Your task to perform on an android device: Go to accessibility settings Image 0: 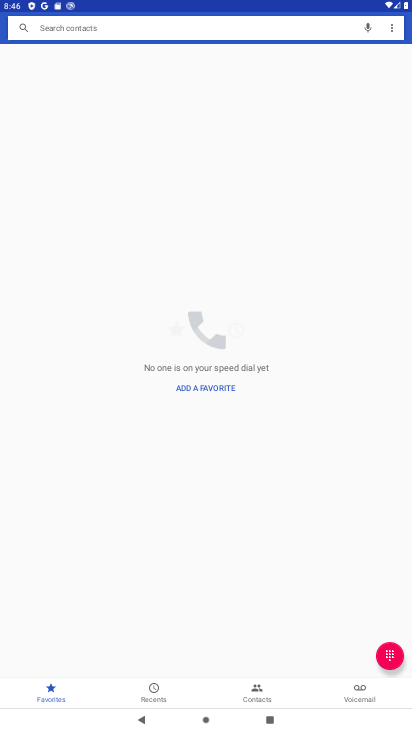
Step 0: press home button
Your task to perform on an android device: Go to accessibility settings Image 1: 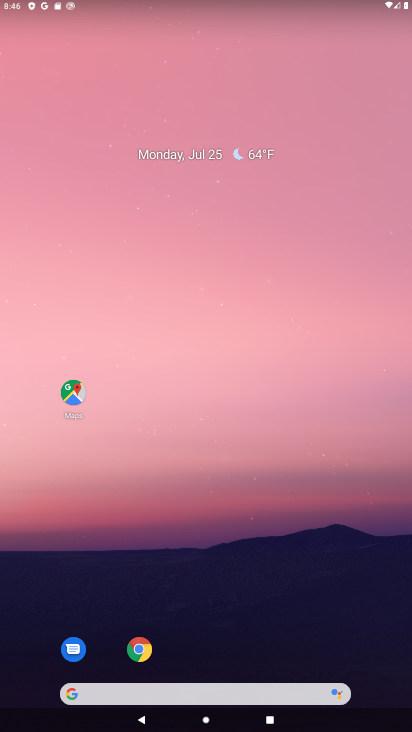
Step 1: drag from (284, 641) to (259, 40)
Your task to perform on an android device: Go to accessibility settings Image 2: 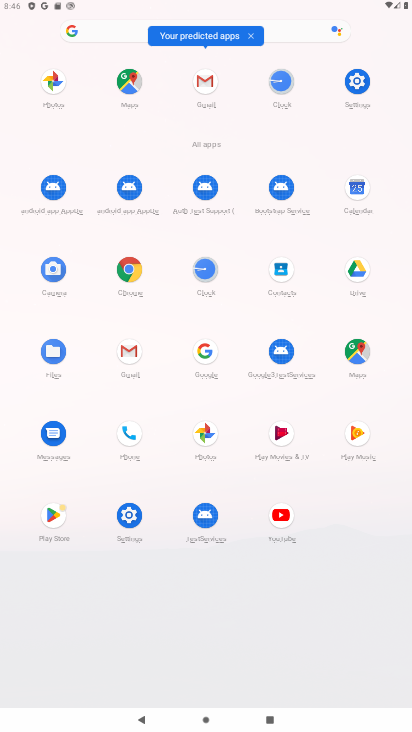
Step 2: click (132, 517)
Your task to perform on an android device: Go to accessibility settings Image 3: 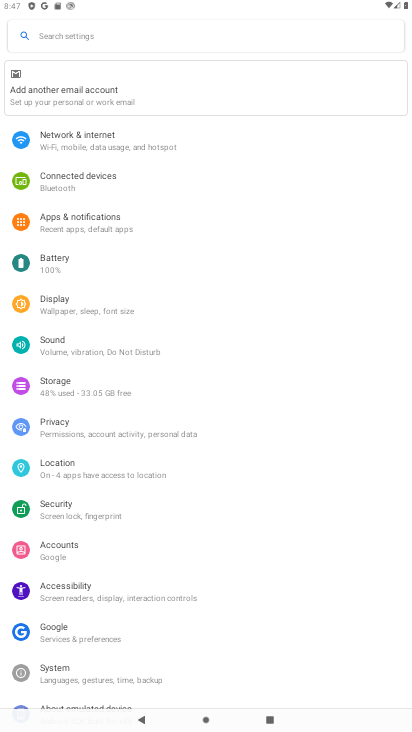
Step 3: click (143, 590)
Your task to perform on an android device: Go to accessibility settings Image 4: 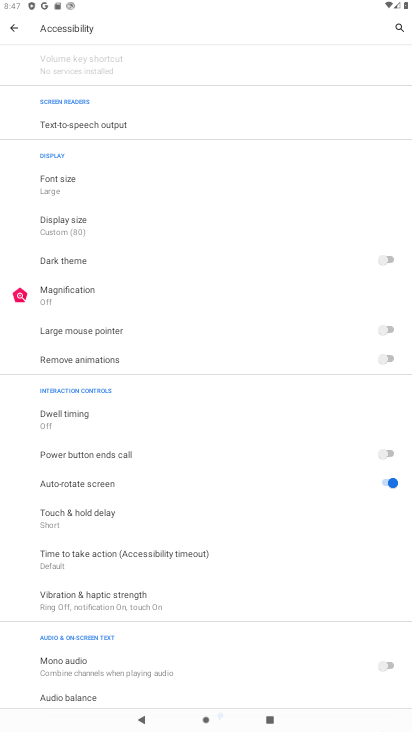
Step 4: task complete